Your task to perform on an android device: choose inbox layout in the gmail app Image 0: 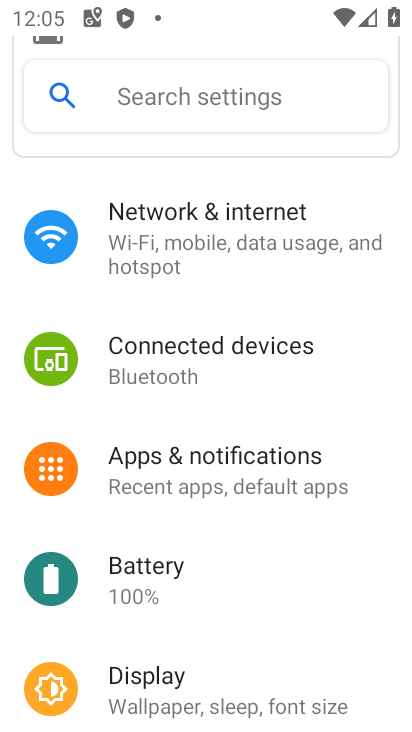
Step 0: press home button
Your task to perform on an android device: choose inbox layout in the gmail app Image 1: 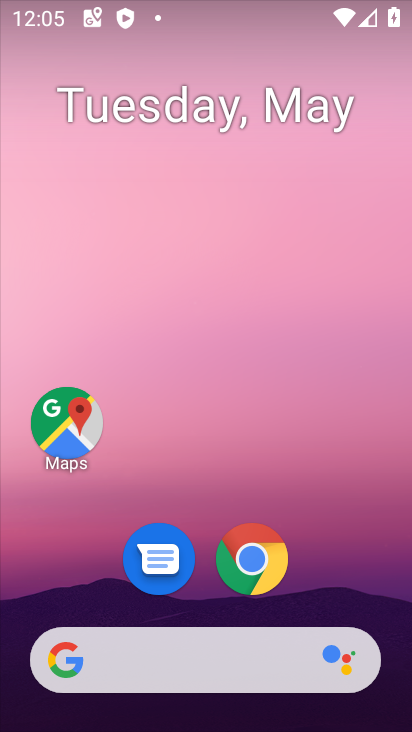
Step 1: drag from (386, 569) to (303, 84)
Your task to perform on an android device: choose inbox layout in the gmail app Image 2: 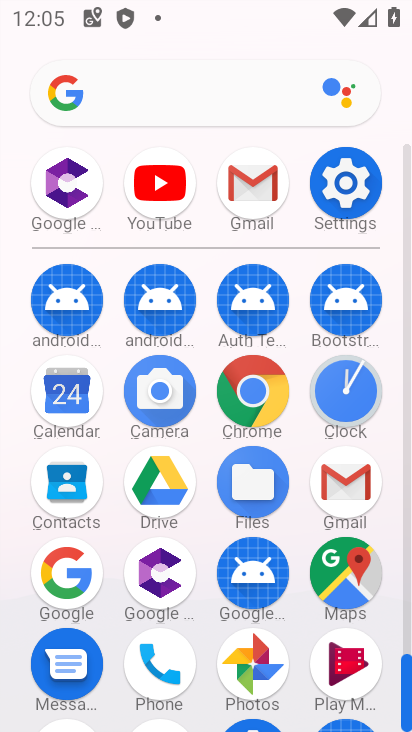
Step 2: click (260, 215)
Your task to perform on an android device: choose inbox layout in the gmail app Image 3: 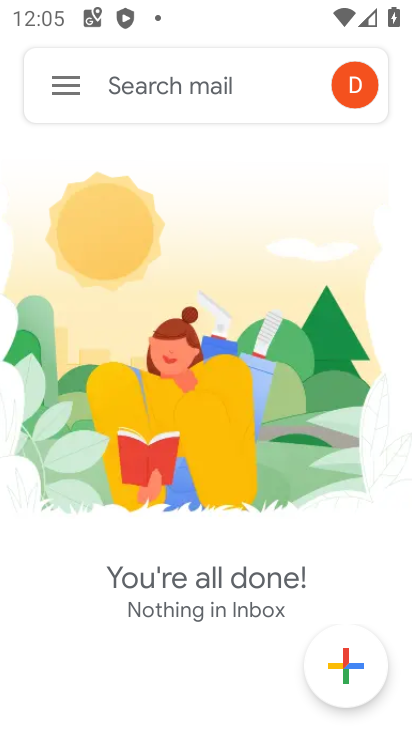
Step 3: click (66, 103)
Your task to perform on an android device: choose inbox layout in the gmail app Image 4: 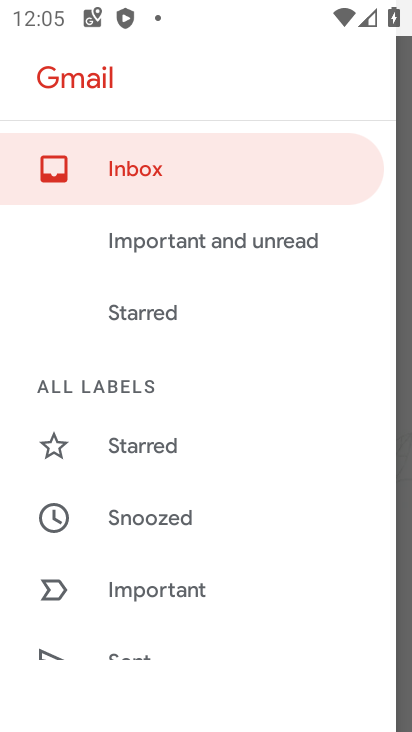
Step 4: drag from (208, 586) to (210, 372)
Your task to perform on an android device: choose inbox layout in the gmail app Image 5: 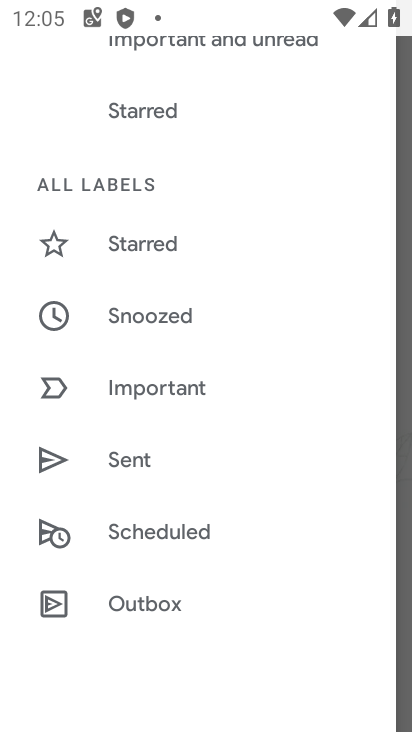
Step 5: drag from (211, 238) to (364, 686)
Your task to perform on an android device: choose inbox layout in the gmail app Image 6: 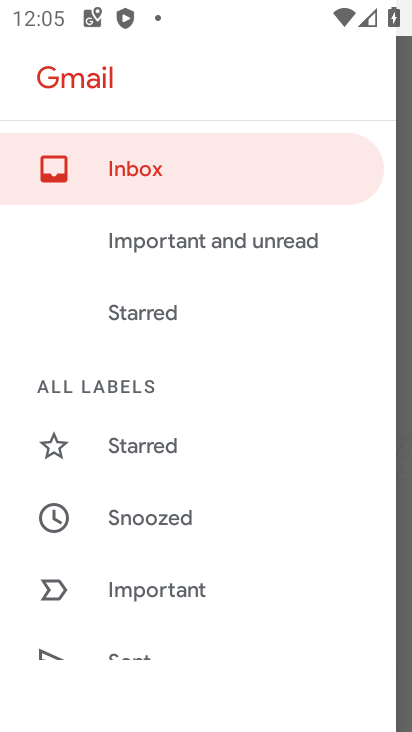
Step 6: click (207, 183)
Your task to perform on an android device: choose inbox layout in the gmail app Image 7: 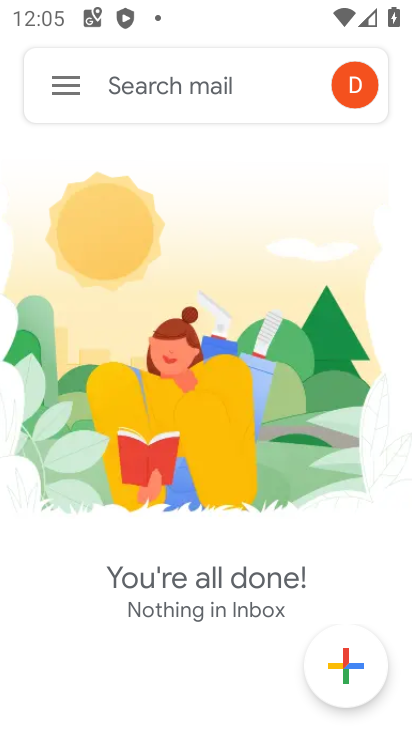
Step 7: task complete